Your task to perform on an android device: Open Android settings Image 0: 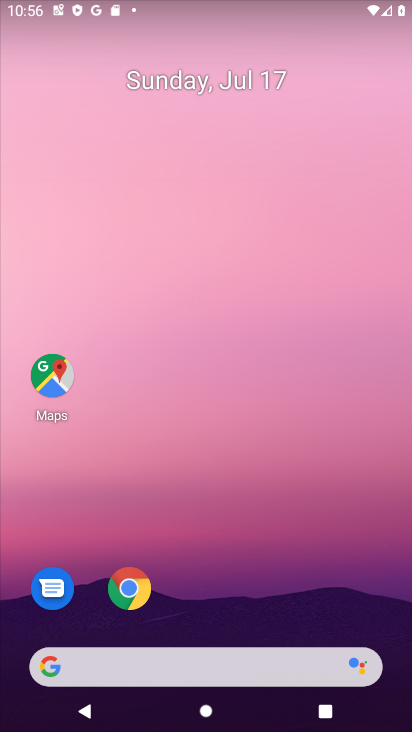
Step 0: drag from (225, 626) to (251, 147)
Your task to perform on an android device: Open Android settings Image 1: 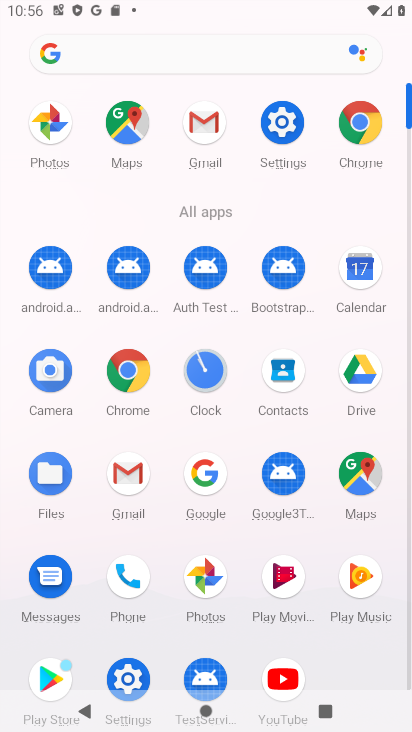
Step 1: click (126, 663)
Your task to perform on an android device: Open Android settings Image 2: 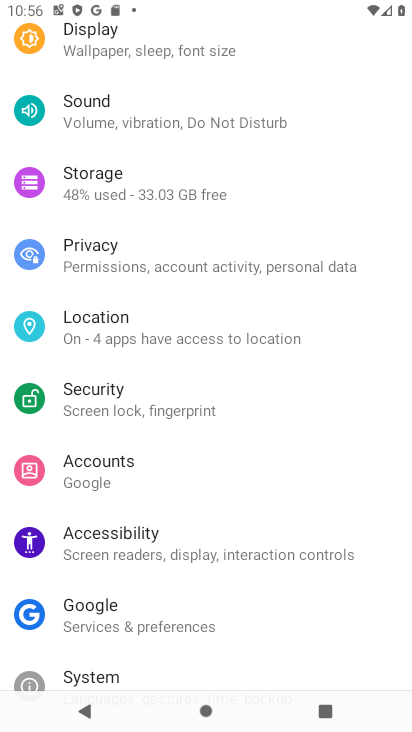
Step 2: drag from (216, 653) to (232, 206)
Your task to perform on an android device: Open Android settings Image 3: 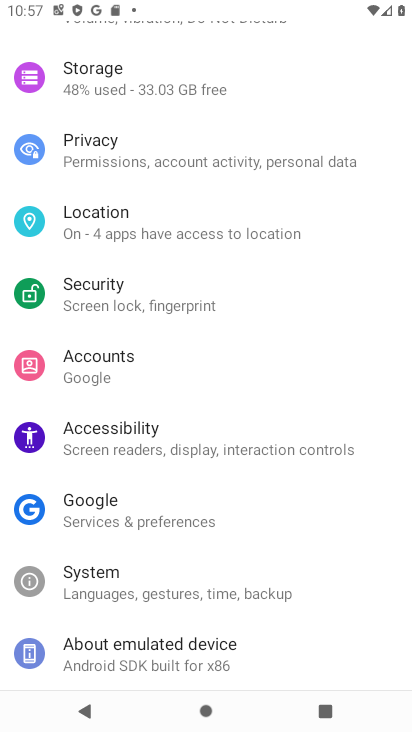
Step 3: click (240, 655)
Your task to perform on an android device: Open Android settings Image 4: 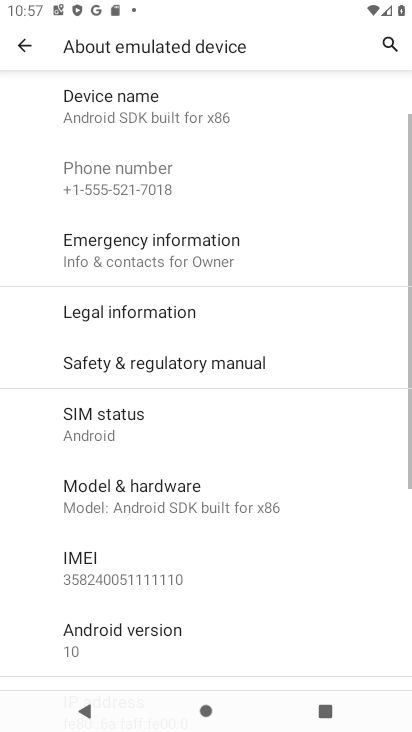
Step 4: task complete